Your task to perform on an android device: turn on location history Image 0: 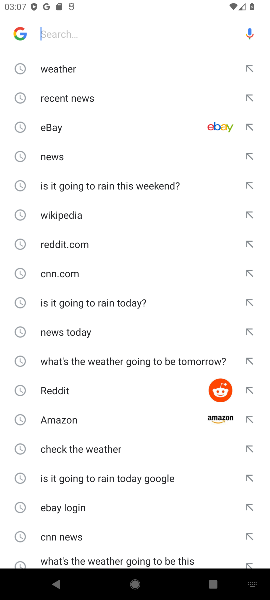
Step 0: press home button
Your task to perform on an android device: turn on location history Image 1: 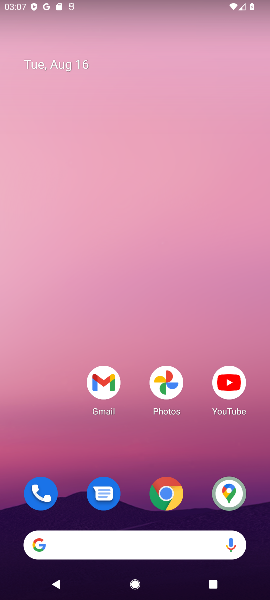
Step 1: drag from (54, 428) to (64, 58)
Your task to perform on an android device: turn on location history Image 2: 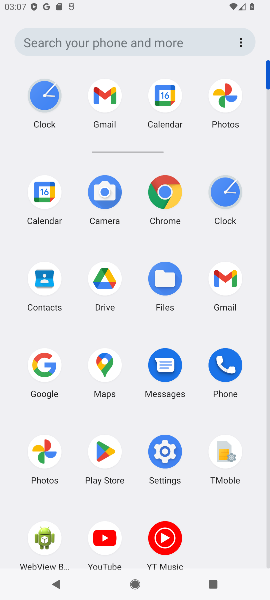
Step 2: click (163, 453)
Your task to perform on an android device: turn on location history Image 3: 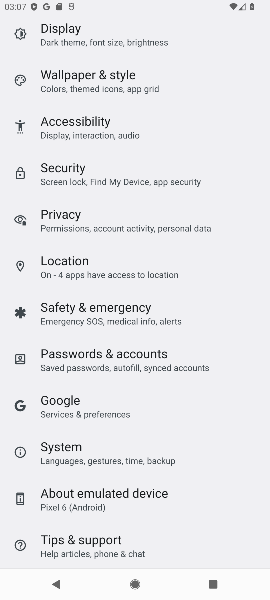
Step 3: drag from (235, 473) to (238, 330)
Your task to perform on an android device: turn on location history Image 4: 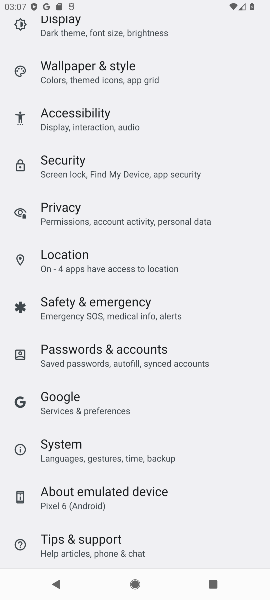
Step 4: drag from (243, 247) to (246, 317)
Your task to perform on an android device: turn on location history Image 5: 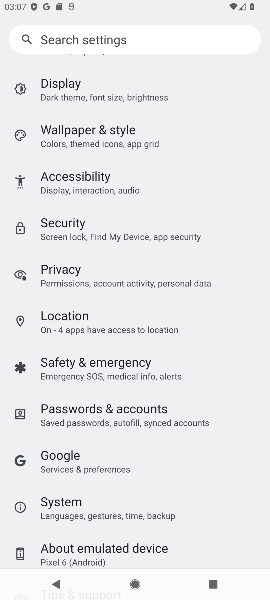
Step 5: drag from (238, 202) to (242, 277)
Your task to perform on an android device: turn on location history Image 6: 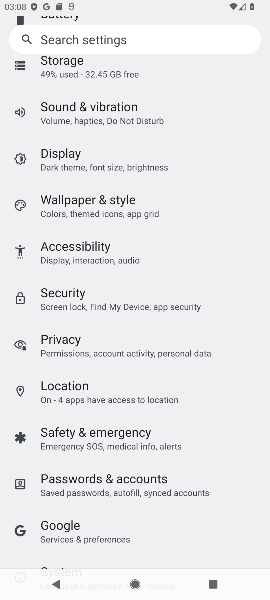
Step 6: drag from (217, 247) to (208, 337)
Your task to perform on an android device: turn on location history Image 7: 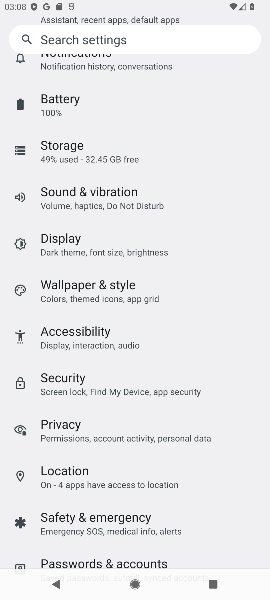
Step 7: drag from (195, 255) to (194, 348)
Your task to perform on an android device: turn on location history Image 8: 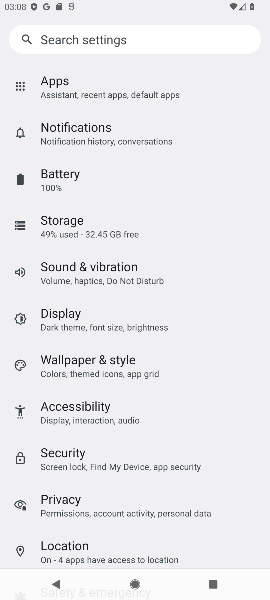
Step 8: drag from (213, 212) to (211, 301)
Your task to perform on an android device: turn on location history Image 9: 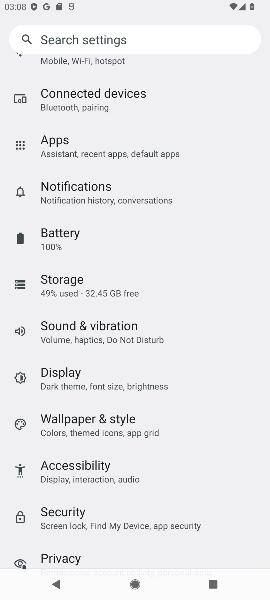
Step 9: drag from (227, 195) to (229, 313)
Your task to perform on an android device: turn on location history Image 10: 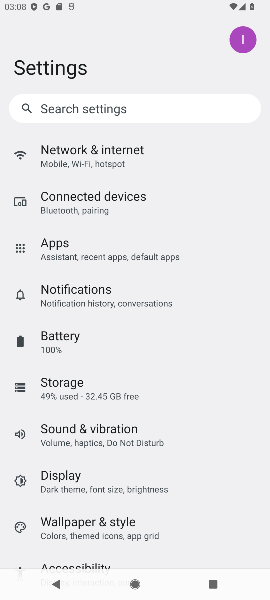
Step 10: drag from (221, 372) to (230, 288)
Your task to perform on an android device: turn on location history Image 11: 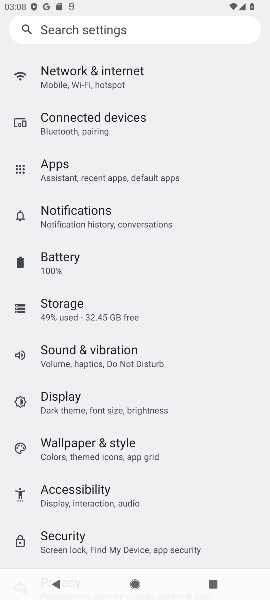
Step 11: drag from (230, 368) to (235, 276)
Your task to perform on an android device: turn on location history Image 12: 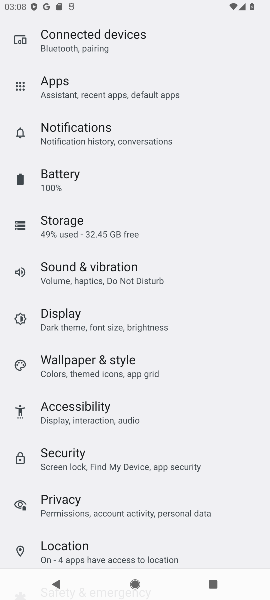
Step 12: drag from (227, 409) to (234, 295)
Your task to perform on an android device: turn on location history Image 13: 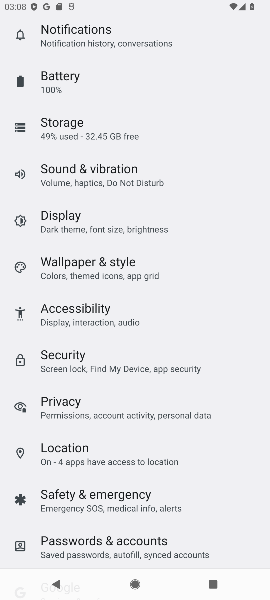
Step 13: click (168, 460)
Your task to perform on an android device: turn on location history Image 14: 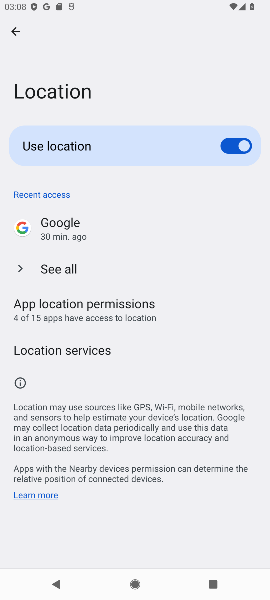
Step 14: click (115, 355)
Your task to perform on an android device: turn on location history Image 15: 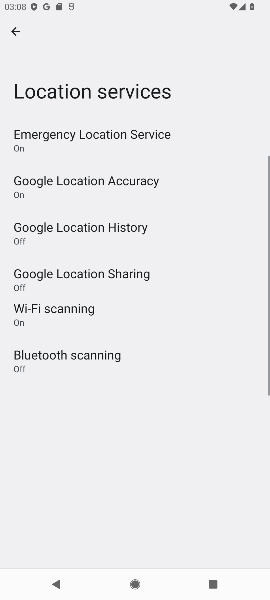
Step 15: click (116, 230)
Your task to perform on an android device: turn on location history Image 16: 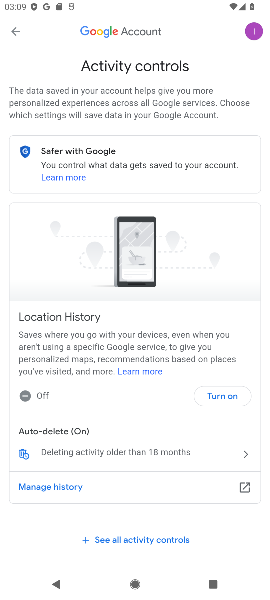
Step 16: click (217, 396)
Your task to perform on an android device: turn on location history Image 17: 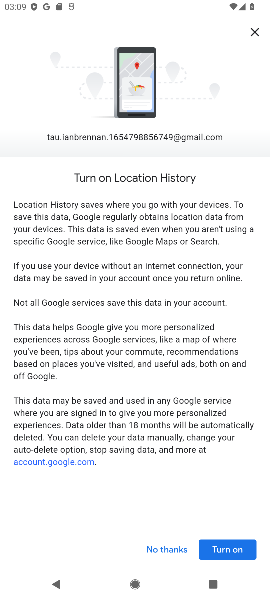
Step 17: click (225, 547)
Your task to perform on an android device: turn on location history Image 18: 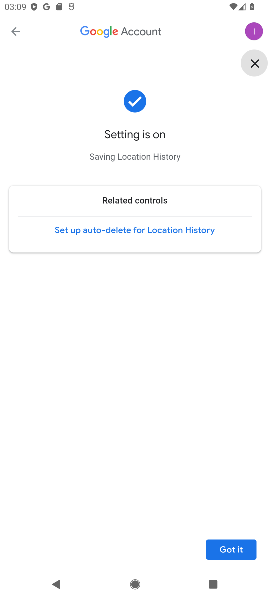
Step 18: task complete